Your task to perform on an android device: Open calendar and show me the second week of next month Image 0: 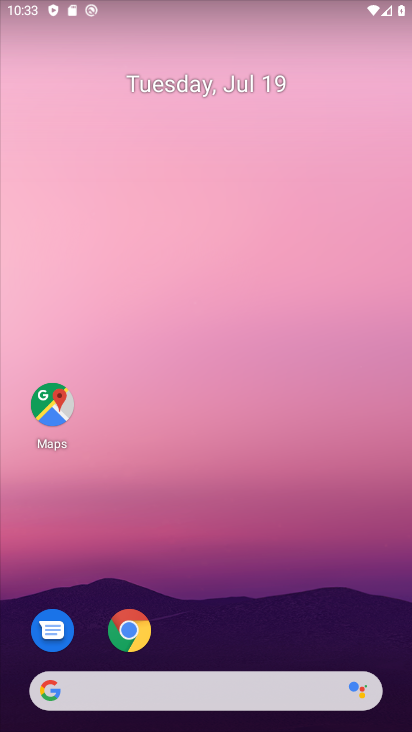
Step 0: drag from (180, 623) to (180, 77)
Your task to perform on an android device: Open calendar and show me the second week of next month Image 1: 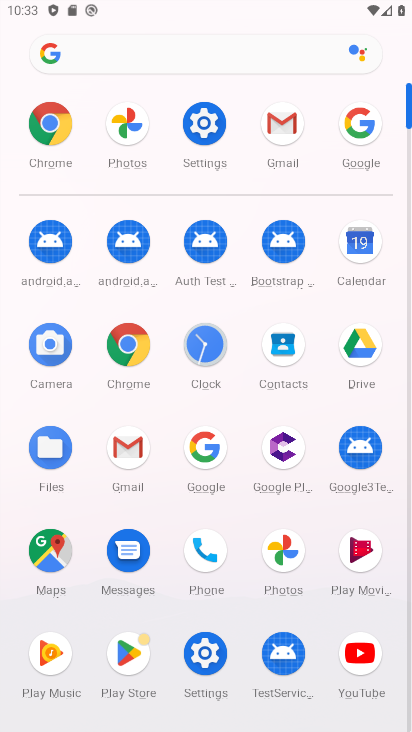
Step 1: click (353, 249)
Your task to perform on an android device: Open calendar and show me the second week of next month Image 2: 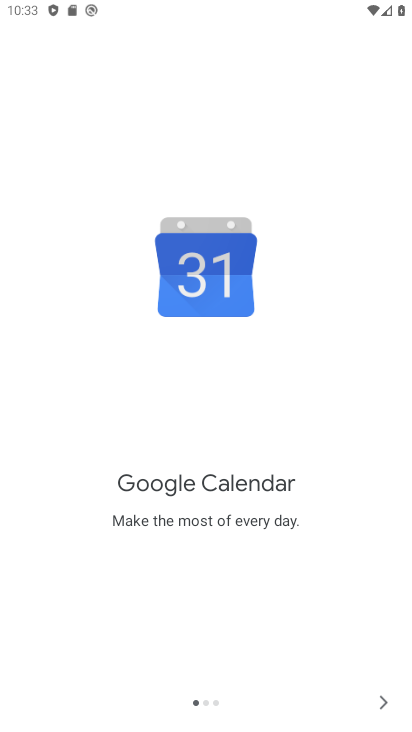
Step 2: click (389, 703)
Your task to perform on an android device: Open calendar and show me the second week of next month Image 3: 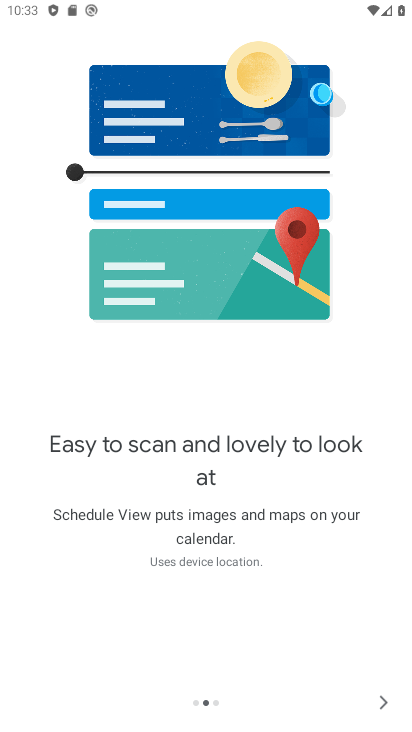
Step 3: click (377, 704)
Your task to perform on an android device: Open calendar and show me the second week of next month Image 4: 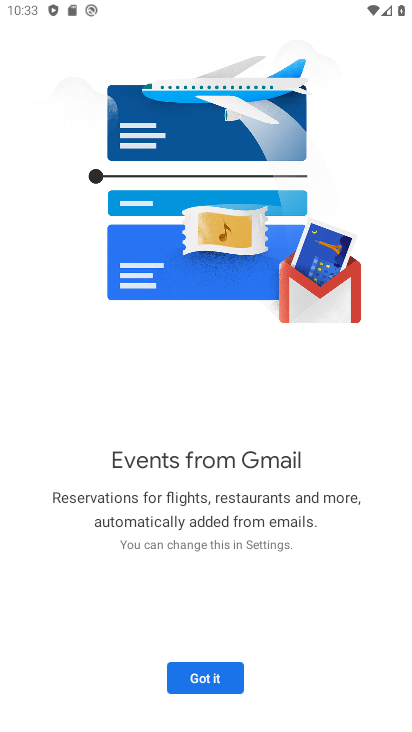
Step 4: click (186, 679)
Your task to perform on an android device: Open calendar and show me the second week of next month Image 5: 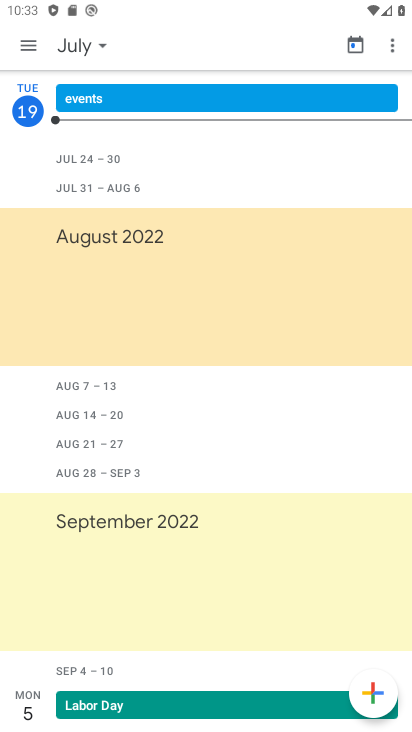
Step 5: click (72, 44)
Your task to perform on an android device: Open calendar and show me the second week of next month Image 6: 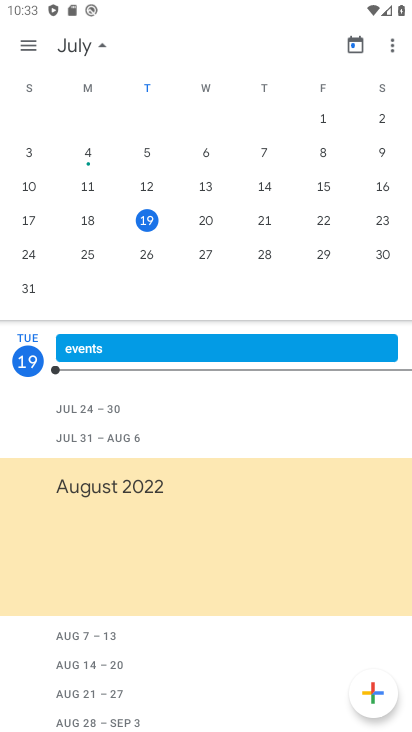
Step 6: drag from (374, 242) to (44, 231)
Your task to perform on an android device: Open calendar and show me the second week of next month Image 7: 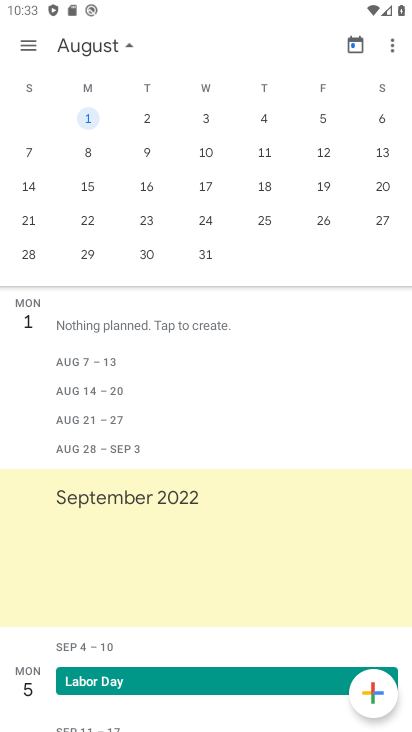
Step 7: click (28, 155)
Your task to perform on an android device: Open calendar and show me the second week of next month Image 8: 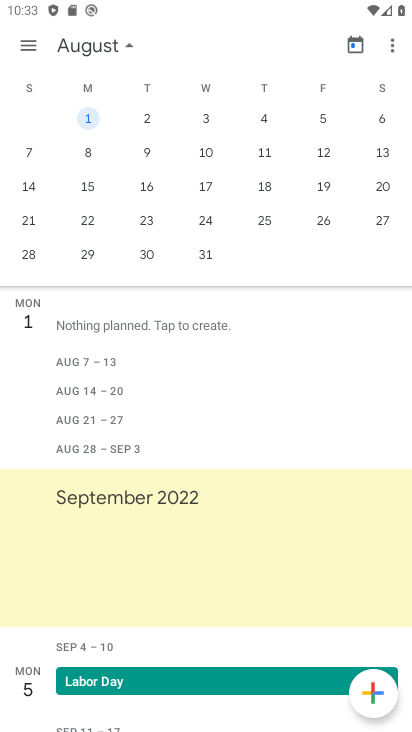
Step 8: click (26, 149)
Your task to perform on an android device: Open calendar and show me the second week of next month Image 9: 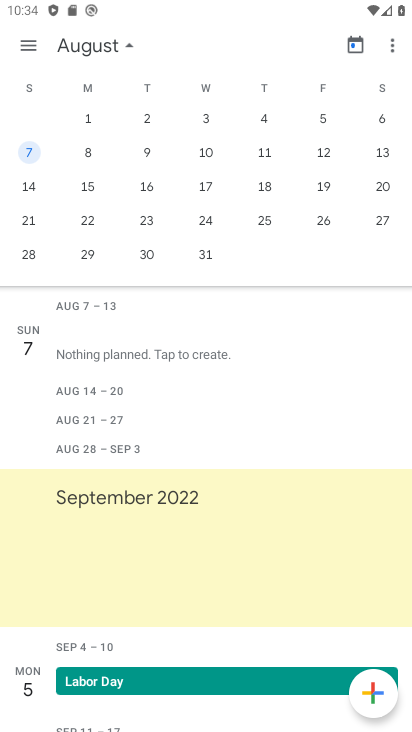
Step 9: task complete